Your task to perform on an android device: Add "acer nitro" to the cart on bestbuy.com Image 0: 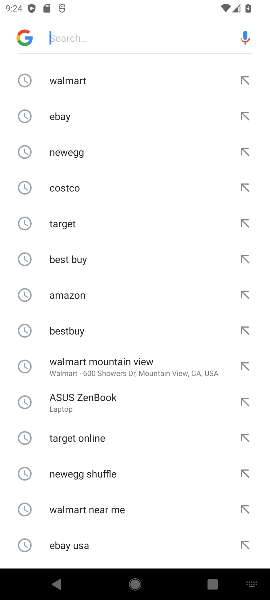
Step 0: press home button
Your task to perform on an android device: Add "acer nitro" to the cart on bestbuy.com Image 1: 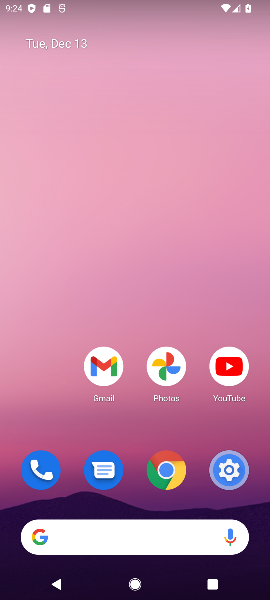
Step 1: click (56, 535)
Your task to perform on an android device: Add "acer nitro" to the cart on bestbuy.com Image 2: 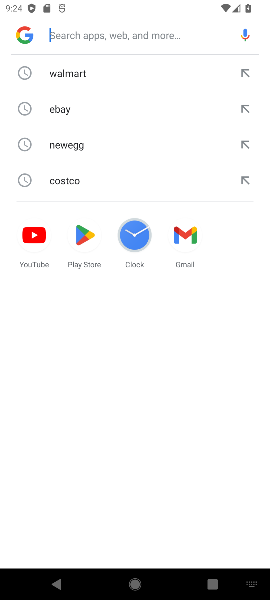
Step 2: type "bestbuy.com"
Your task to perform on an android device: Add "acer nitro" to the cart on bestbuy.com Image 3: 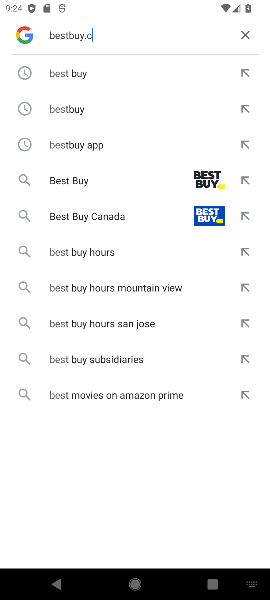
Step 3: press enter
Your task to perform on an android device: Add "acer nitro" to the cart on bestbuy.com Image 4: 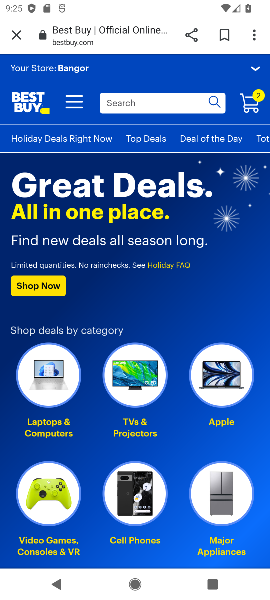
Step 4: click (114, 99)
Your task to perform on an android device: Add "acer nitro" to the cart on bestbuy.com Image 5: 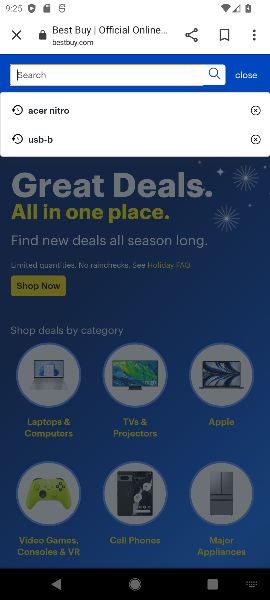
Step 5: type "acer nitro"
Your task to perform on an android device: Add "acer nitro" to the cart on bestbuy.com Image 6: 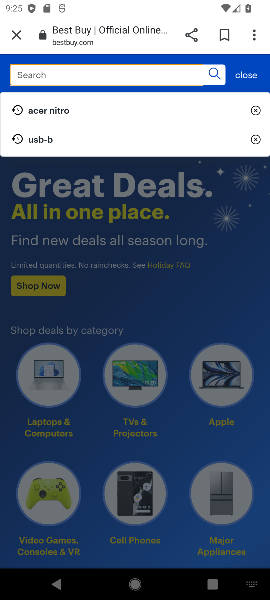
Step 6: press enter
Your task to perform on an android device: Add "acer nitro" to the cart on bestbuy.com Image 7: 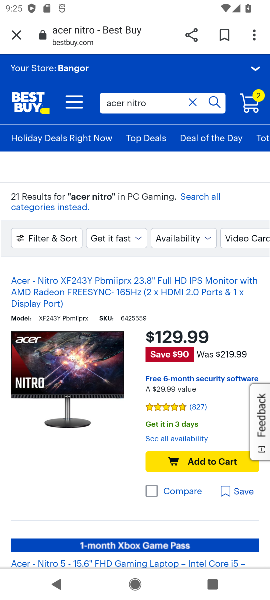
Step 7: drag from (115, 477) to (125, 270)
Your task to perform on an android device: Add "acer nitro" to the cart on bestbuy.com Image 8: 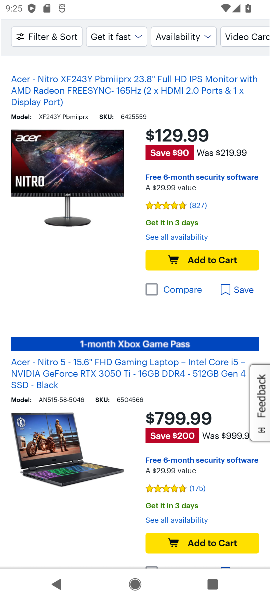
Step 8: click (195, 255)
Your task to perform on an android device: Add "acer nitro" to the cart on bestbuy.com Image 9: 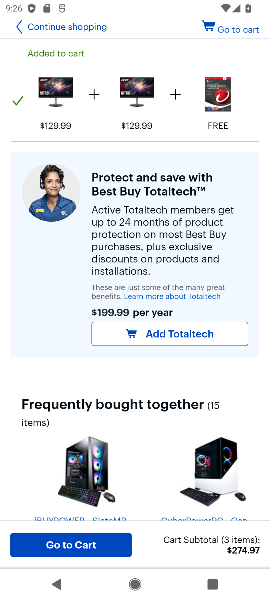
Step 9: click (48, 544)
Your task to perform on an android device: Add "acer nitro" to the cart on bestbuy.com Image 10: 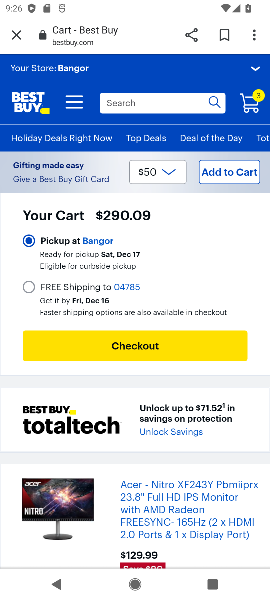
Step 10: click (128, 344)
Your task to perform on an android device: Add "acer nitro" to the cart on bestbuy.com Image 11: 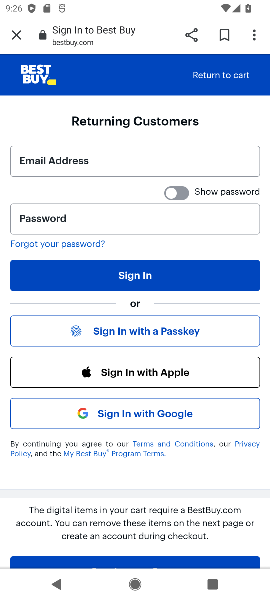
Step 11: task complete